Your task to perform on an android device: Go to Amazon Image 0: 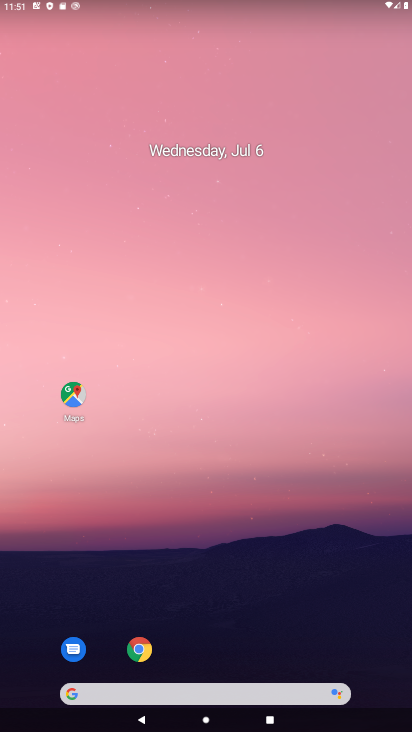
Step 0: drag from (55, 656) to (284, 16)
Your task to perform on an android device: Go to Amazon Image 1: 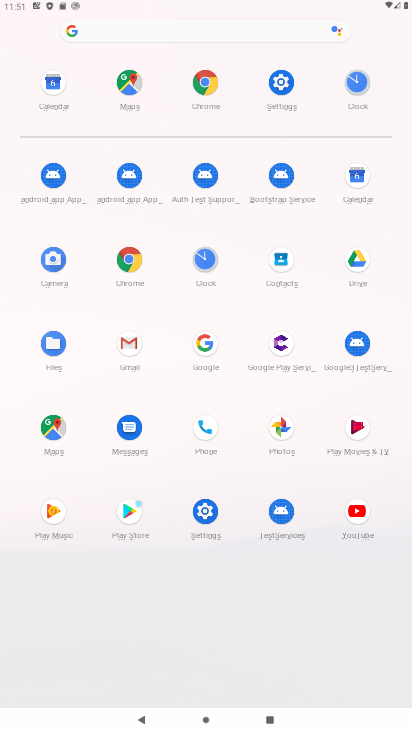
Step 1: click (198, 96)
Your task to perform on an android device: Go to Amazon Image 2: 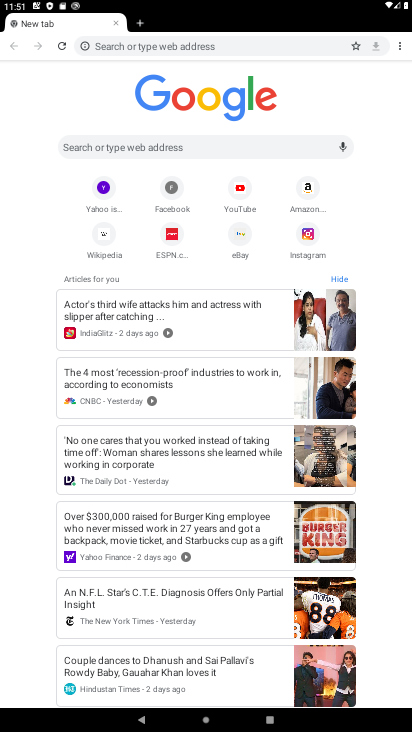
Step 2: click (126, 41)
Your task to perform on an android device: Go to Amazon Image 3: 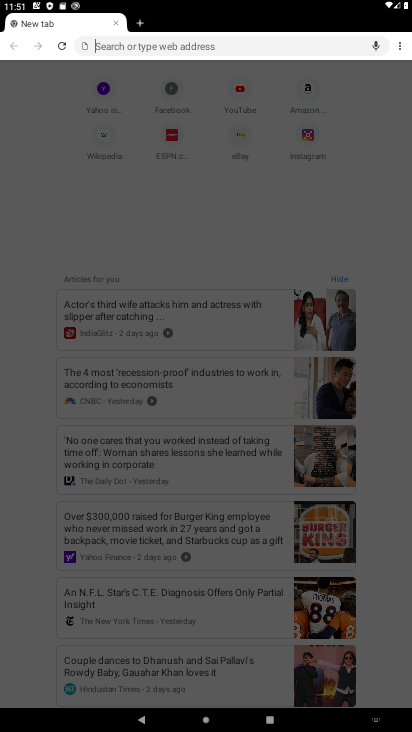
Step 3: type " Amazon"
Your task to perform on an android device: Go to Amazon Image 4: 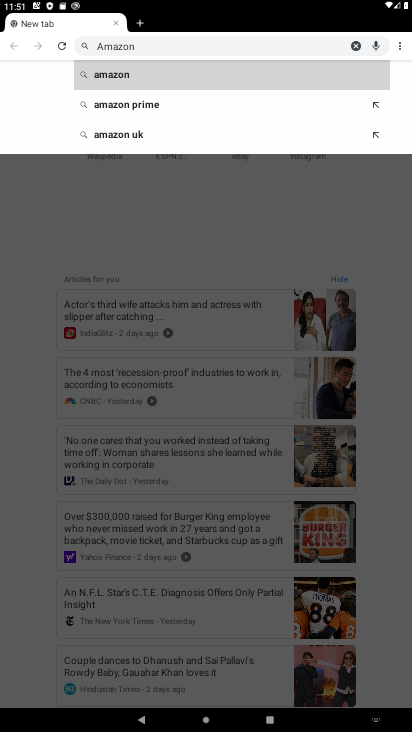
Step 4: type ""
Your task to perform on an android device: Go to Amazon Image 5: 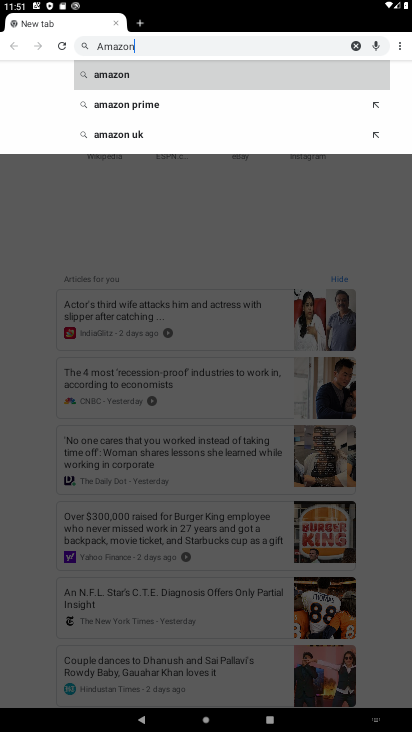
Step 5: click (125, 71)
Your task to perform on an android device: Go to Amazon Image 6: 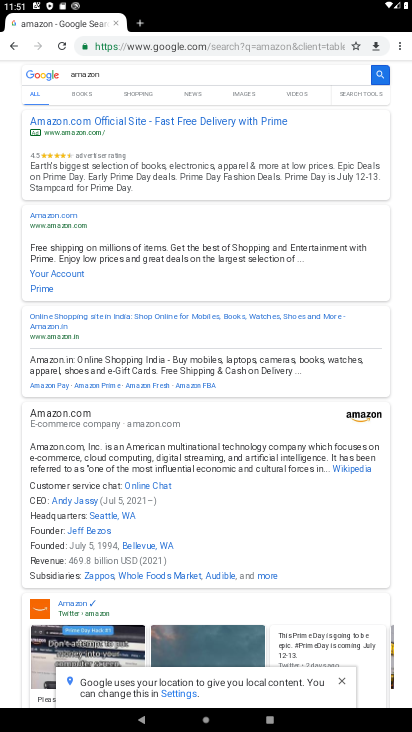
Step 6: task complete